Your task to perform on an android device: Open Google Maps Image 0: 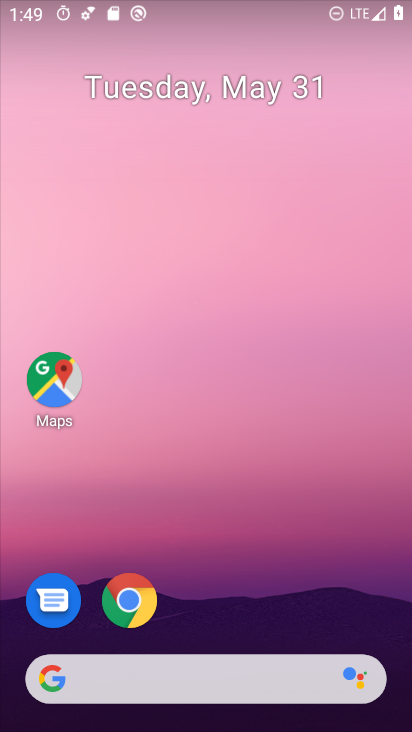
Step 0: drag from (206, 674) to (214, 35)
Your task to perform on an android device: Open Google Maps Image 1: 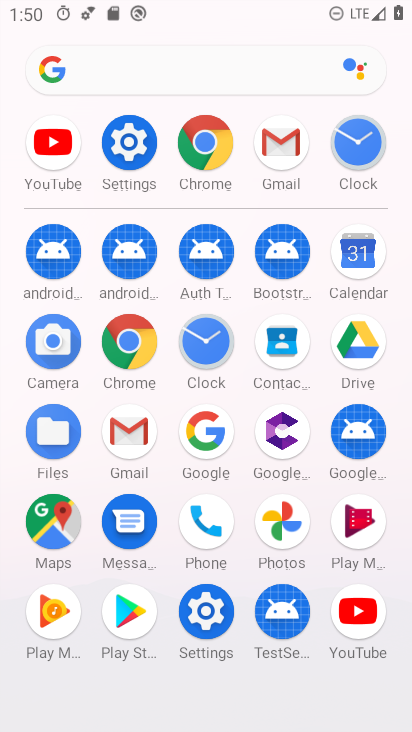
Step 1: click (56, 520)
Your task to perform on an android device: Open Google Maps Image 2: 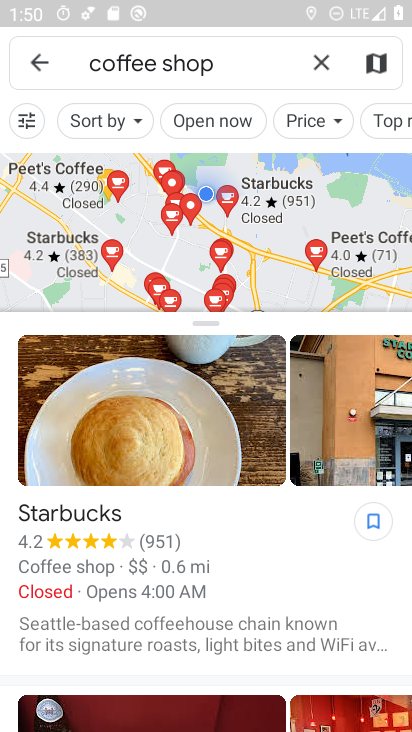
Step 2: task complete